Your task to perform on an android device: snooze an email in the gmail app Image 0: 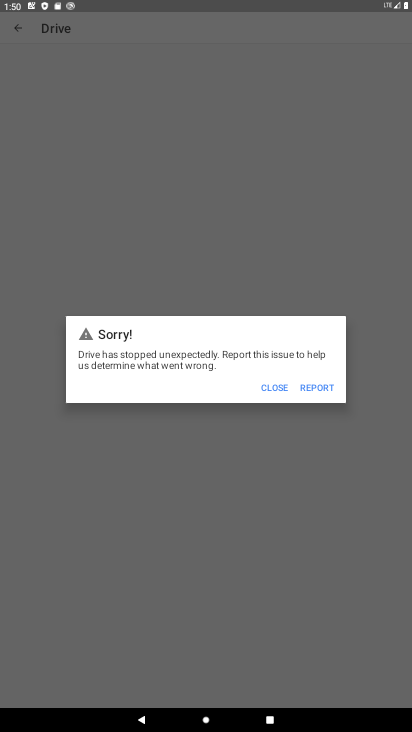
Step 0: press home button
Your task to perform on an android device: snooze an email in the gmail app Image 1: 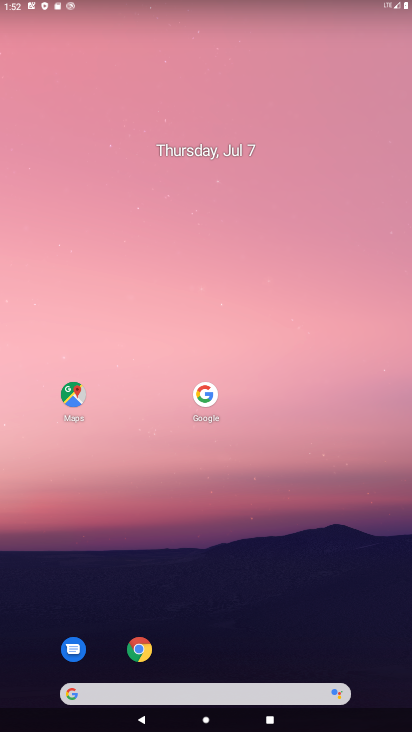
Step 1: press home button
Your task to perform on an android device: snooze an email in the gmail app Image 2: 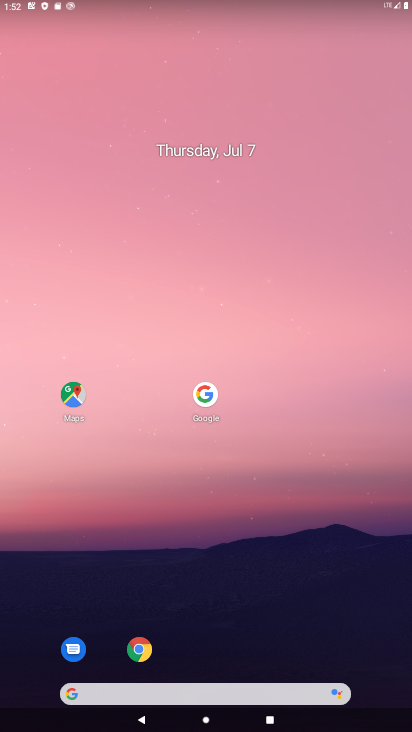
Step 2: drag from (340, 569) to (265, 48)
Your task to perform on an android device: snooze an email in the gmail app Image 3: 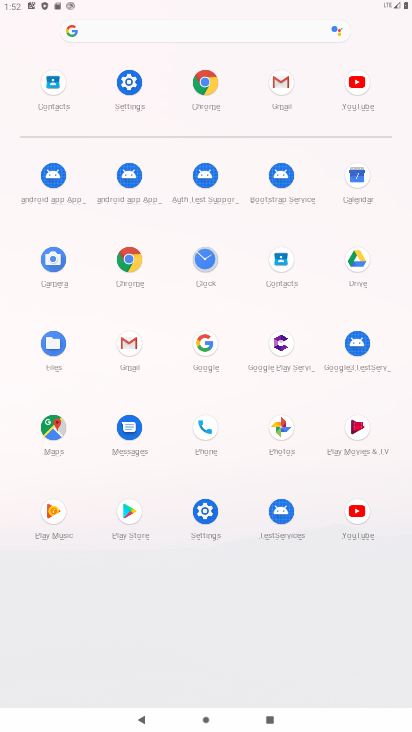
Step 3: click (288, 73)
Your task to perform on an android device: snooze an email in the gmail app Image 4: 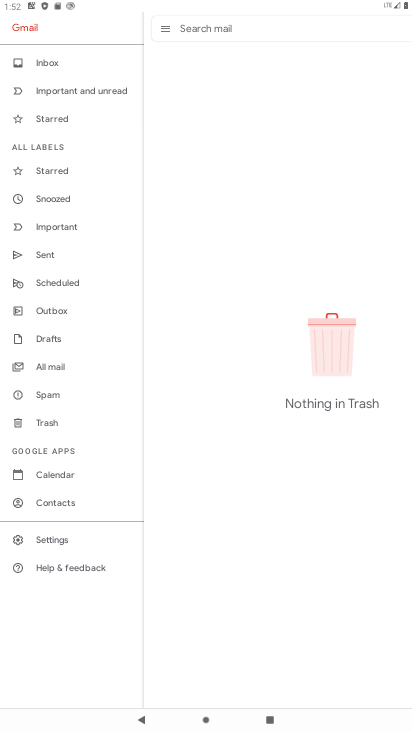
Step 4: click (52, 196)
Your task to perform on an android device: snooze an email in the gmail app Image 5: 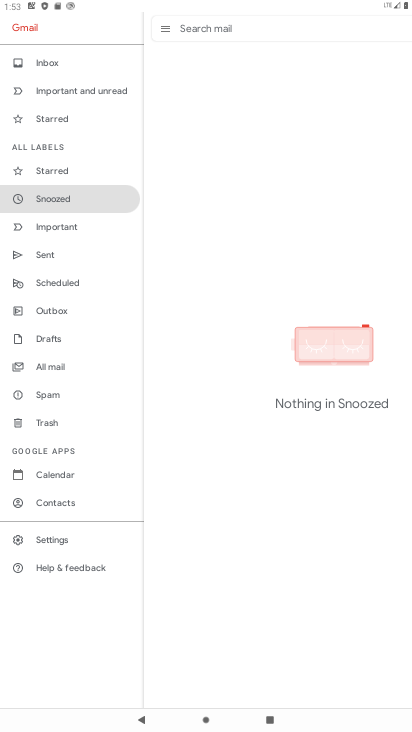
Step 5: task complete